Your task to perform on an android device: install app "Skype" Image 0: 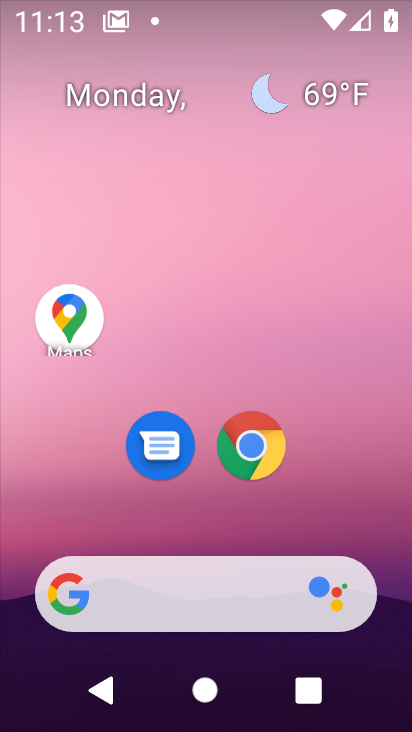
Step 0: drag from (225, 614) to (261, 78)
Your task to perform on an android device: install app "Skype" Image 1: 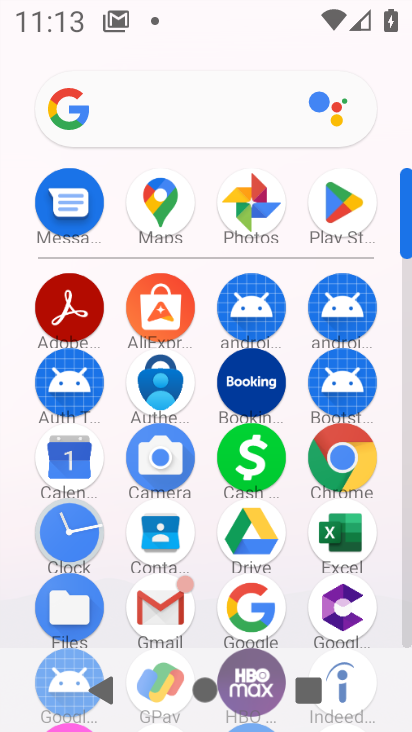
Step 1: click (346, 195)
Your task to perform on an android device: install app "Skype" Image 2: 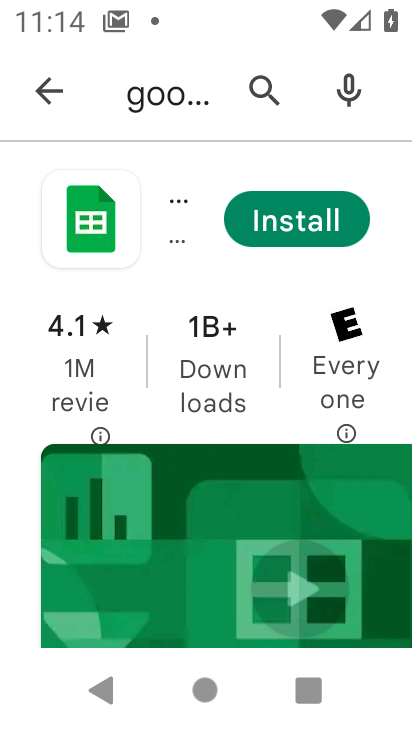
Step 2: click (38, 86)
Your task to perform on an android device: install app "Skype" Image 3: 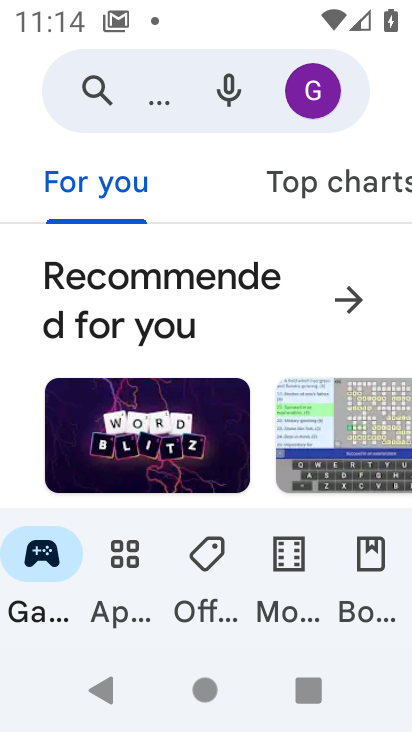
Step 3: click (107, 94)
Your task to perform on an android device: install app "Skype" Image 4: 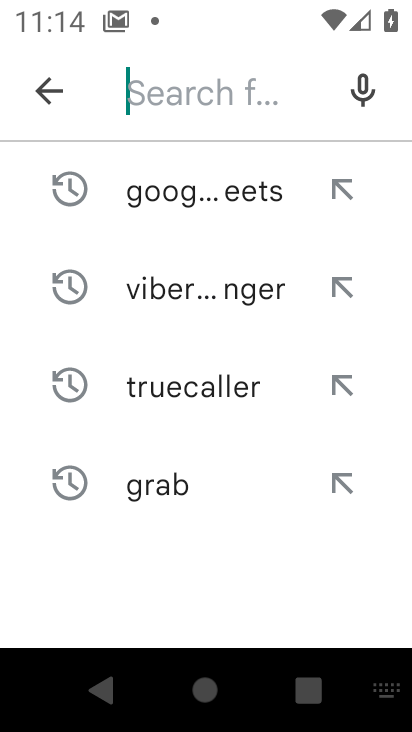
Step 4: type "Skype"
Your task to perform on an android device: install app "Skype" Image 5: 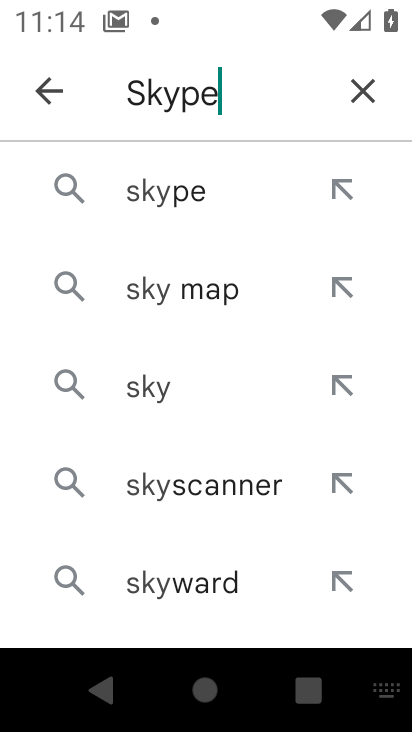
Step 5: type ""
Your task to perform on an android device: install app "Skype" Image 6: 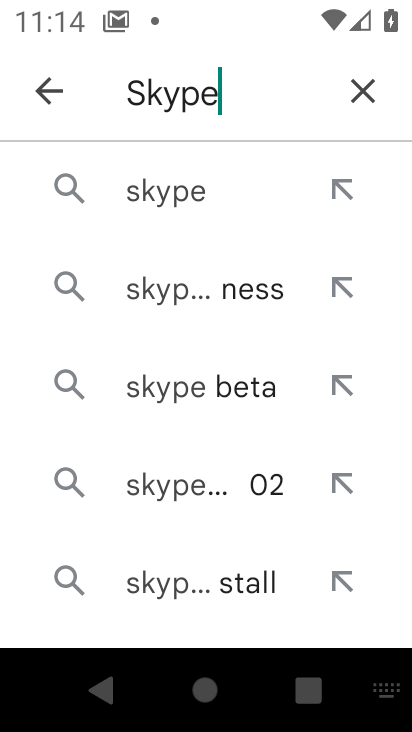
Step 6: click (166, 209)
Your task to perform on an android device: install app "Skype" Image 7: 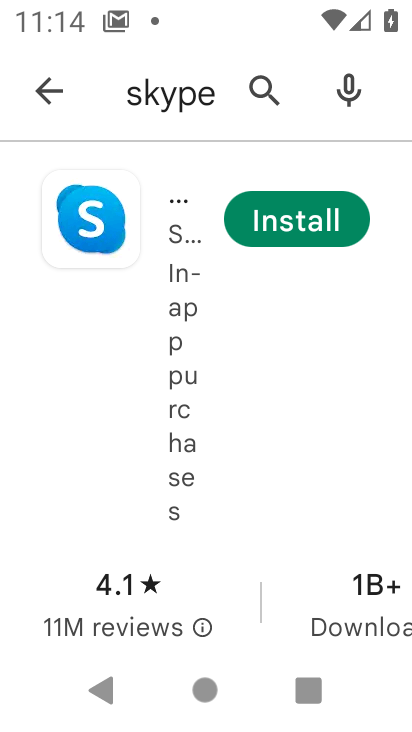
Step 7: click (307, 226)
Your task to perform on an android device: install app "Skype" Image 8: 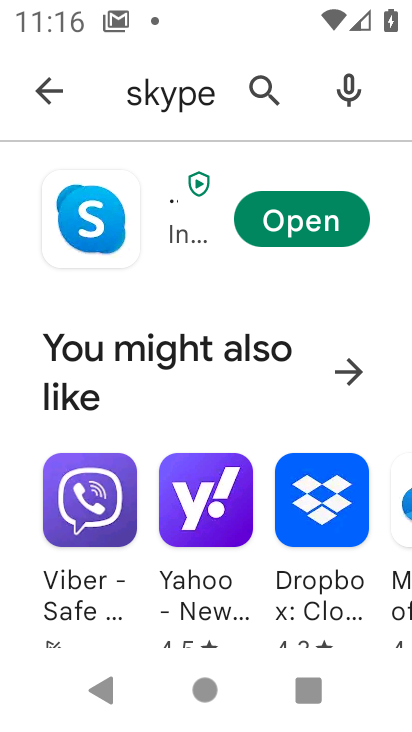
Step 8: task complete